Your task to perform on an android device: What is the recent news? Image 0: 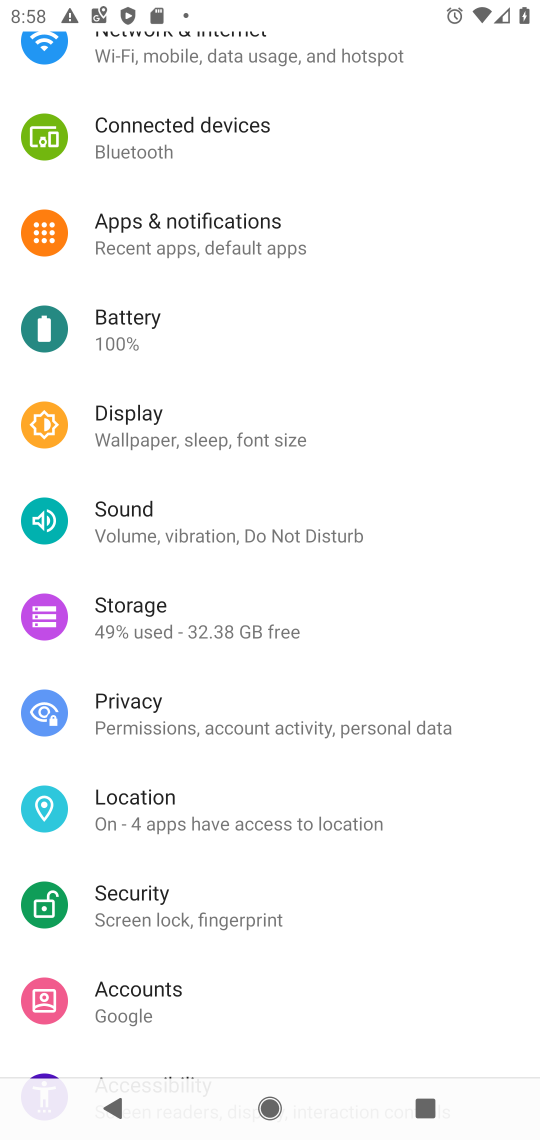
Step 0: press home button
Your task to perform on an android device: What is the recent news? Image 1: 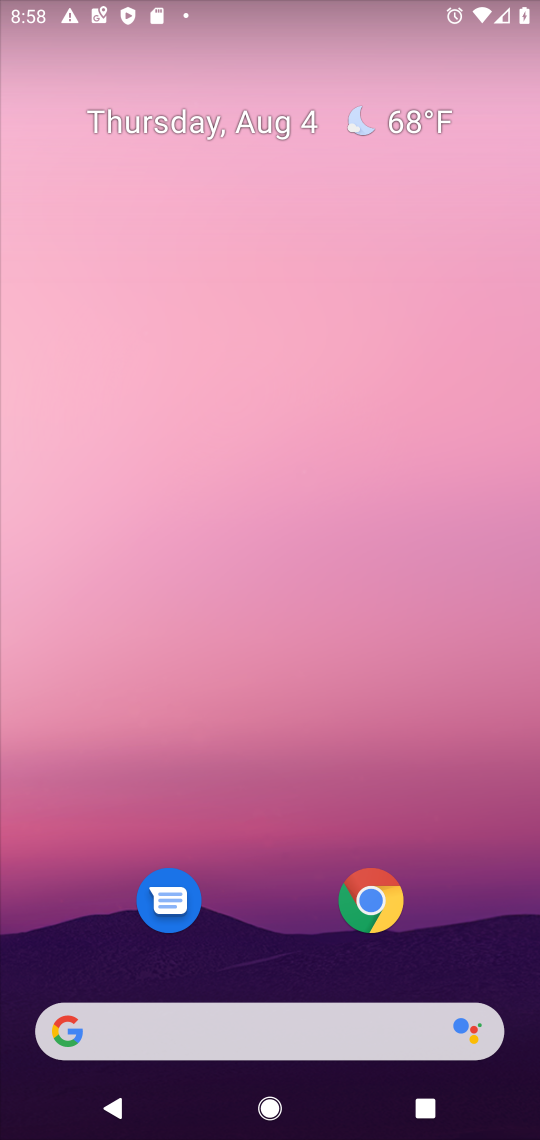
Step 1: drag from (195, 1037) to (401, 291)
Your task to perform on an android device: What is the recent news? Image 2: 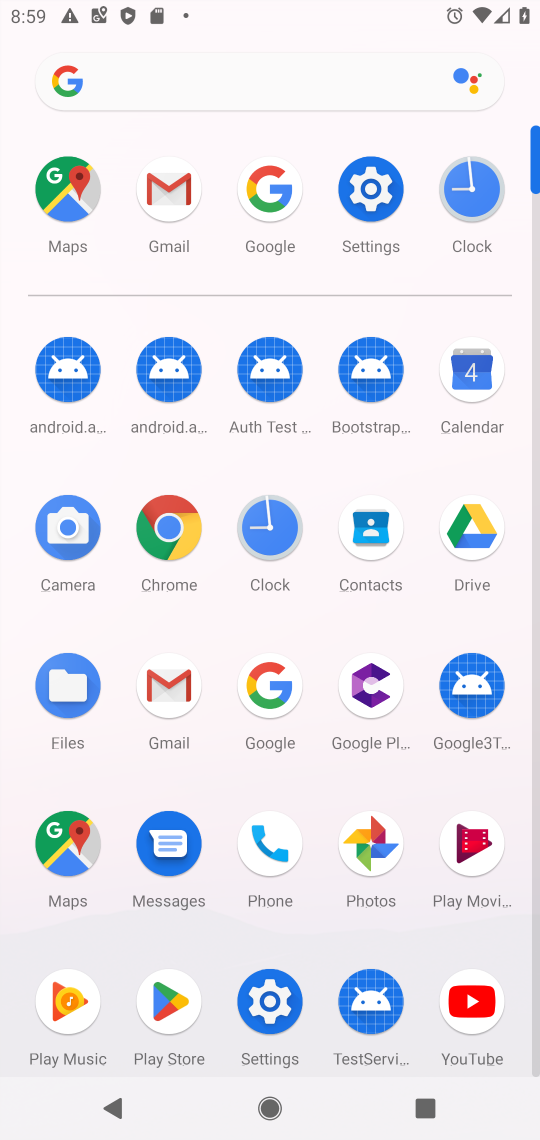
Step 2: click (262, 190)
Your task to perform on an android device: What is the recent news? Image 3: 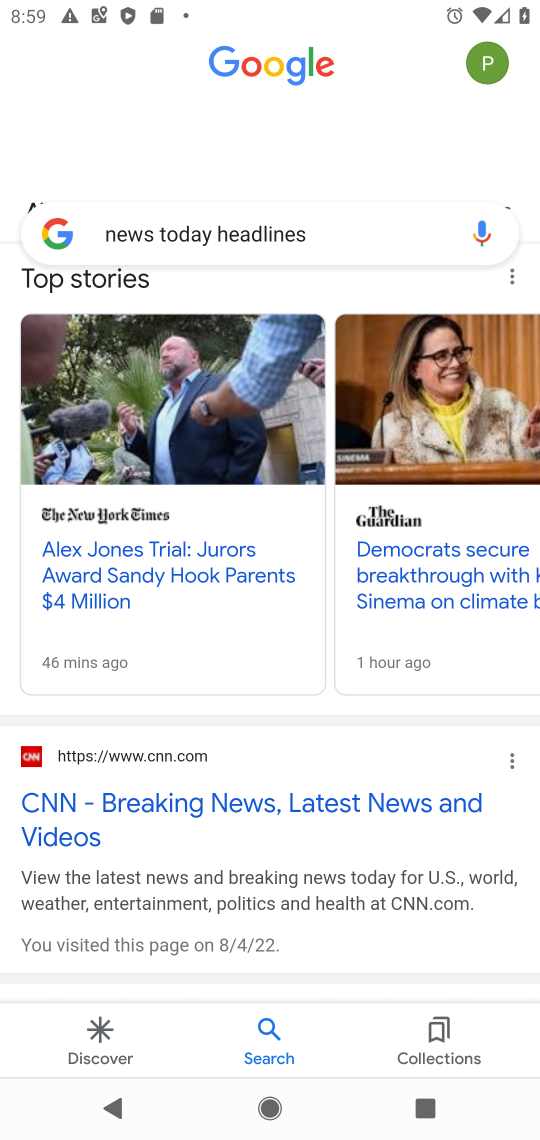
Step 3: click (365, 231)
Your task to perform on an android device: What is the recent news? Image 4: 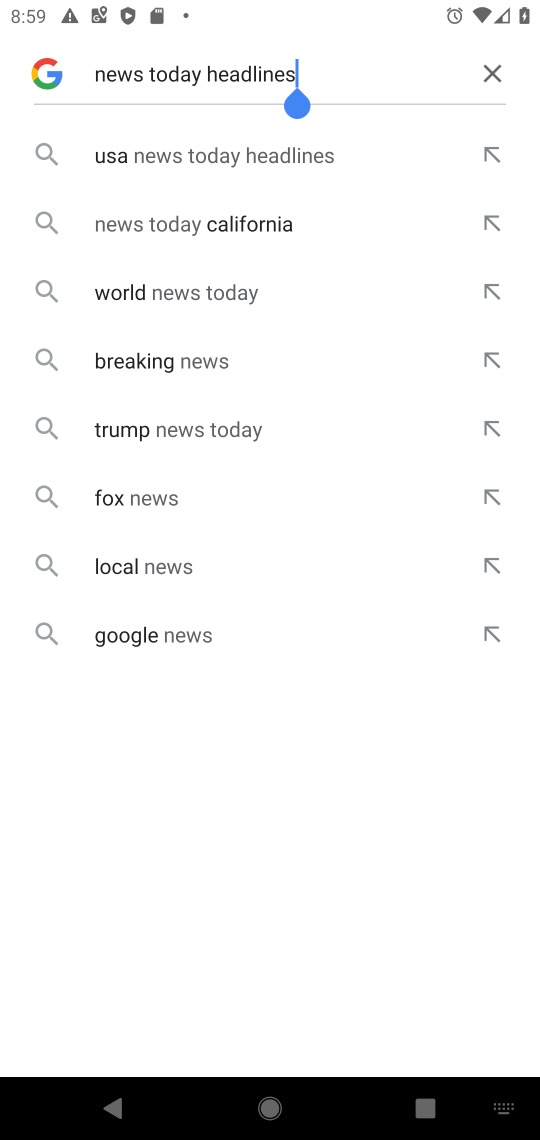
Step 4: click (497, 65)
Your task to perform on an android device: What is the recent news? Image 5: 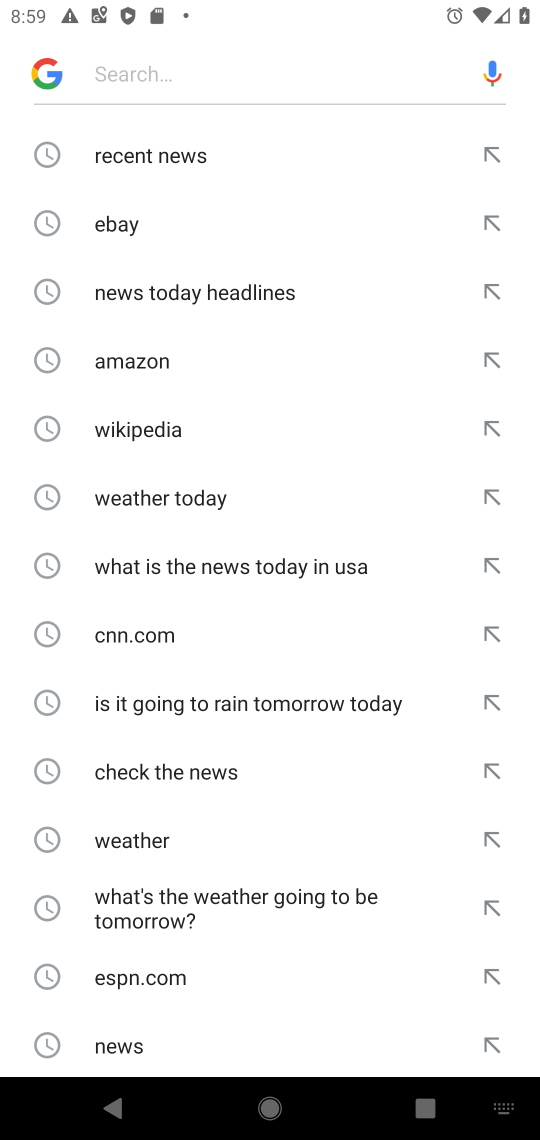
Step 5: click (180, 164)
Your task to perform on an android device: What is the recent news? Image 6: 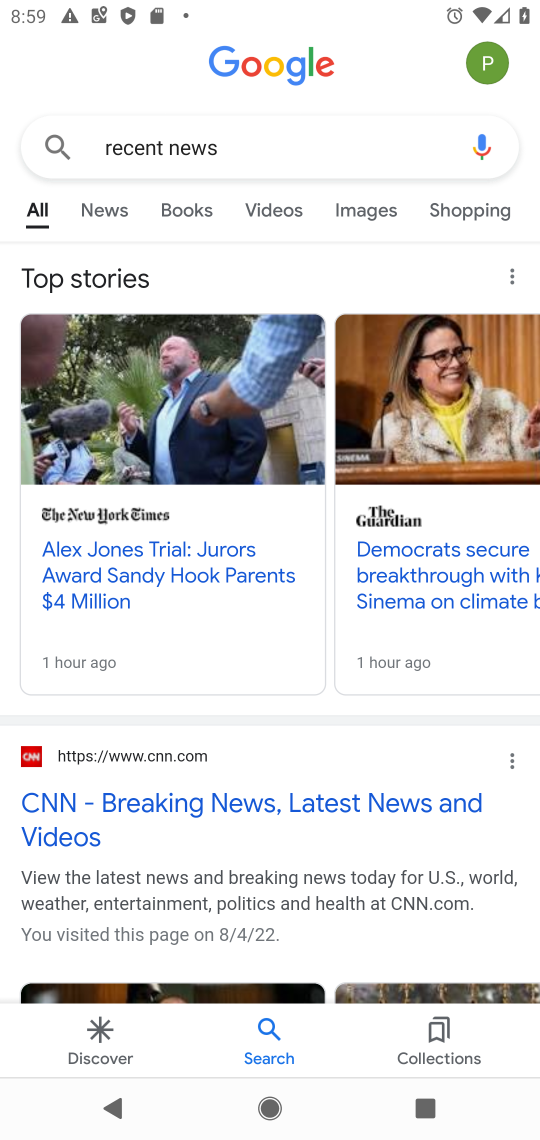
Step 6: click (217, 571)
Your task to perform on an android device: What is the recent news? Image 7: 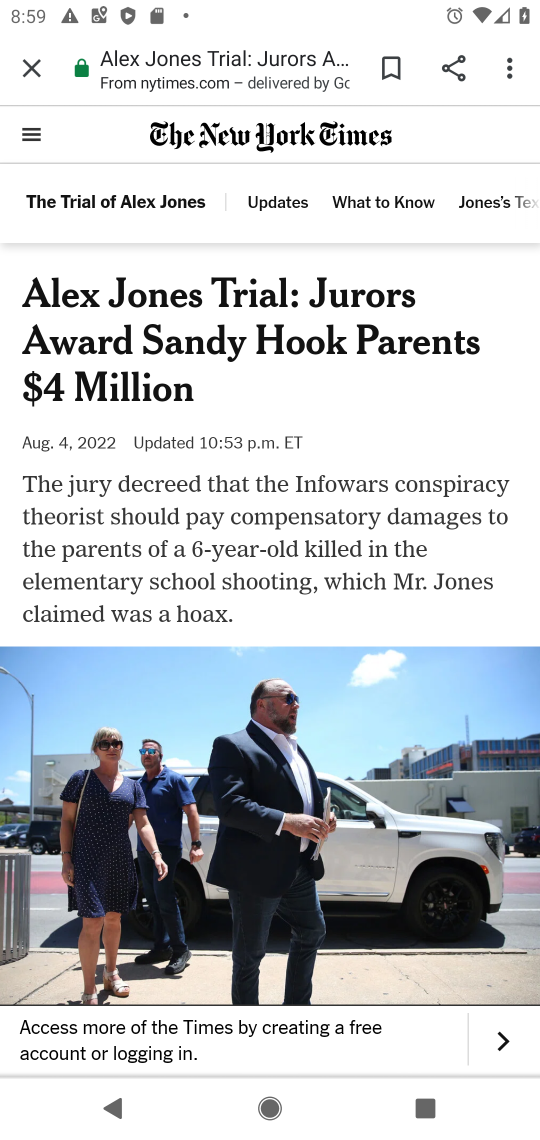
Step 7: task complete